Your task to perform on an android device: Open Chrome and go to the settings page Image 0: 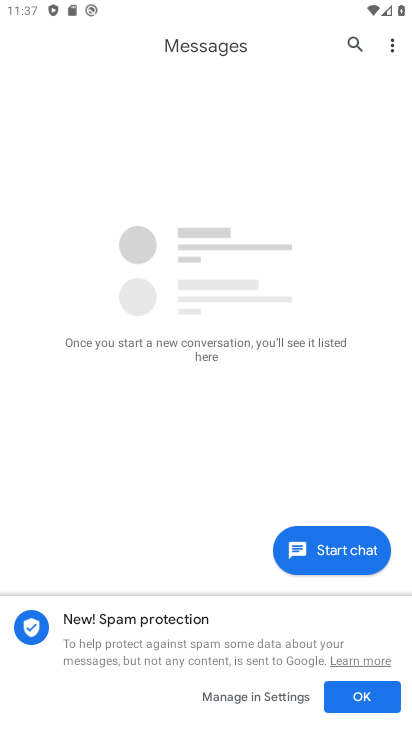
Step 0: press home button
Your task to perform on an android device: Open Chrome and go to the settings page Image 1: 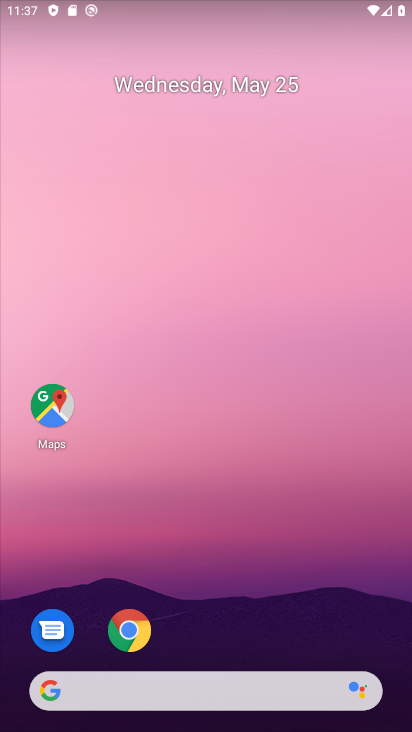
Step 1: click (147, 641)
Your task to perform on an android device: Open Chrome and go to the settings page Image 2: 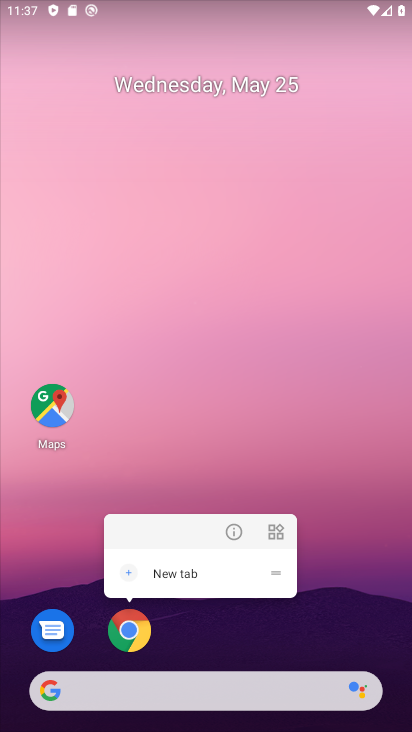
Step 2: click (146, 640)
Your task to perform on an android device: Open Chrome and go to the settings page Image 3: 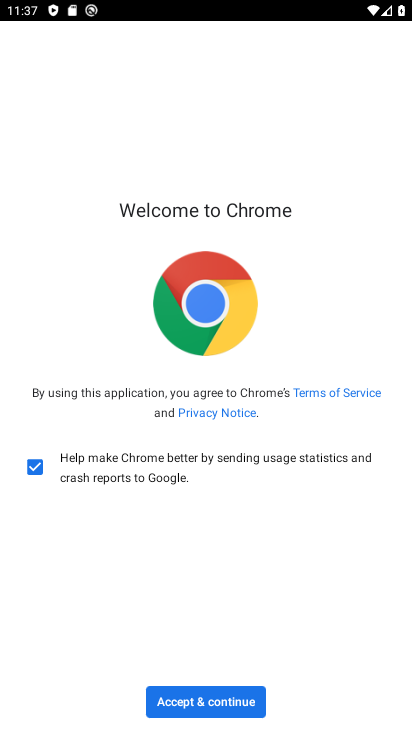
Step 3: click (240, 704)
Your task to perform on an android device: Open Chrome and go to the settings page Image 4: 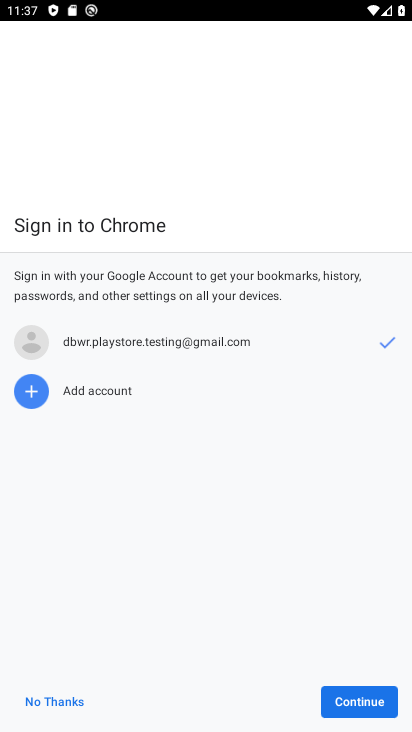
Step 4: click (338, 699)
Your task to perform on an android device: Open Chrome and go to the settings page Image 5: 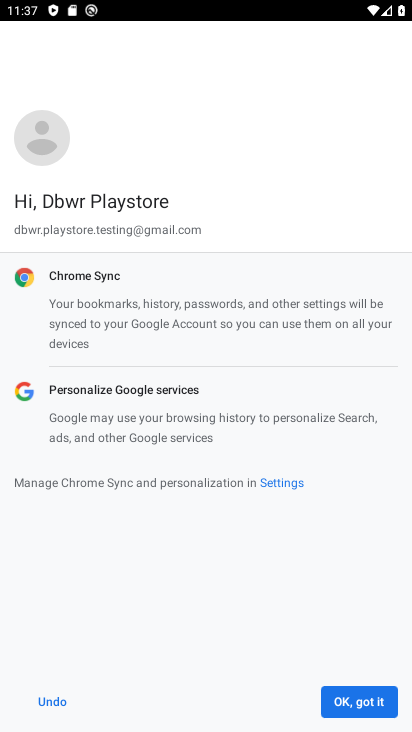
Step 5: click (339, 700)
Your task to perform on an android device: Open Chrome and go to the settings page Image 6: 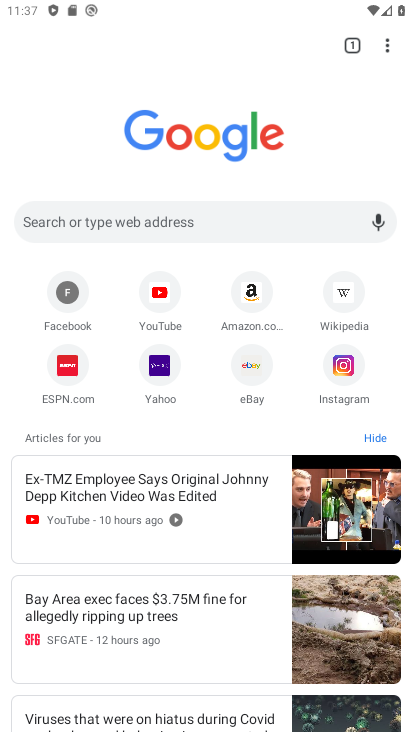
Step 6: task complete